Your task to perform on an android device: Open Youtube and go to "Your channel" Image 0: 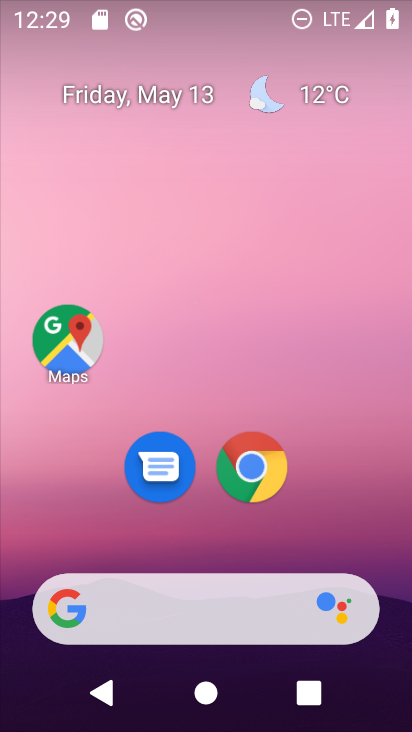
Step 0: drag from (292, 500) to (201, 3)
Your task to perform on an android device: Open Youtube and go to "Your channel" Image 1: 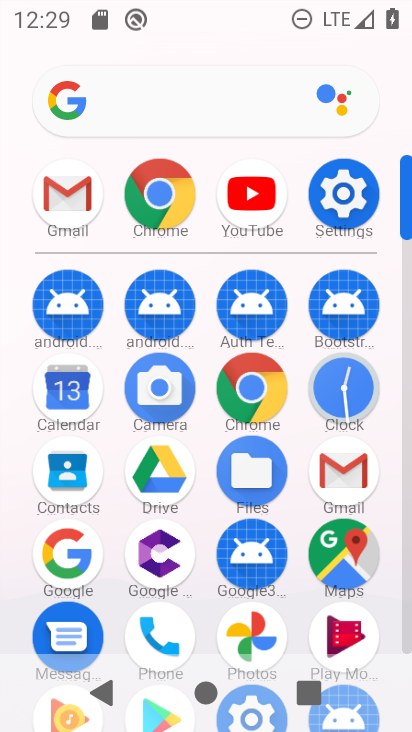
Step 1: drag from (17, 487) to (18, 231)
Your task to perform on an android device: Open Youtube and go to "Your channel" Image 2: 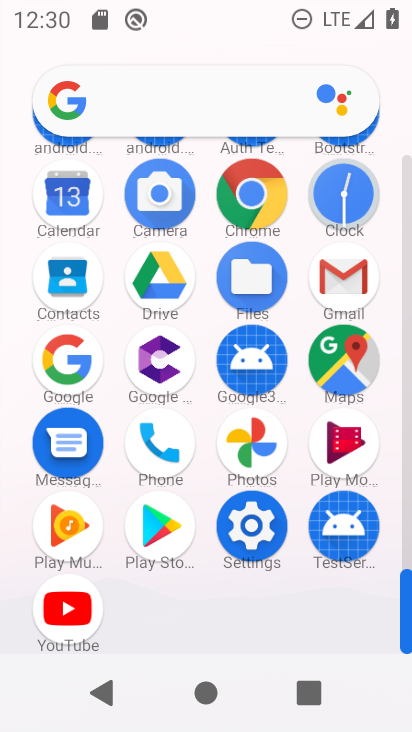
Step 2: drag from (27, 512) to (13, 199)
Your task to perform on an android device: Open Youtube and go to "Your channel" Image 3: 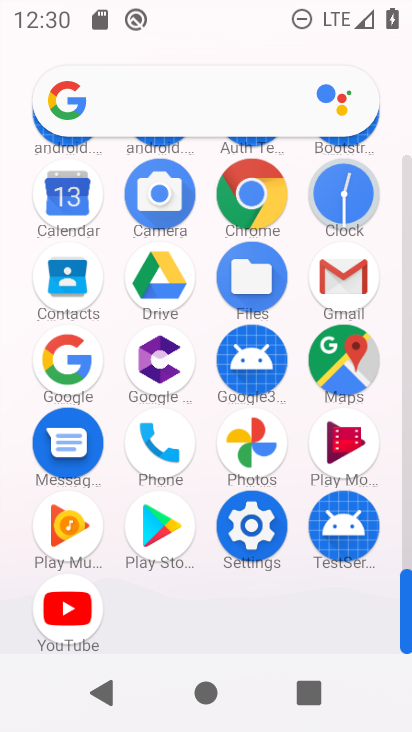
Step 3: click (62, 607)
Your task to perform on an android device: Open Youtube and go to "Your channel" Image 4: 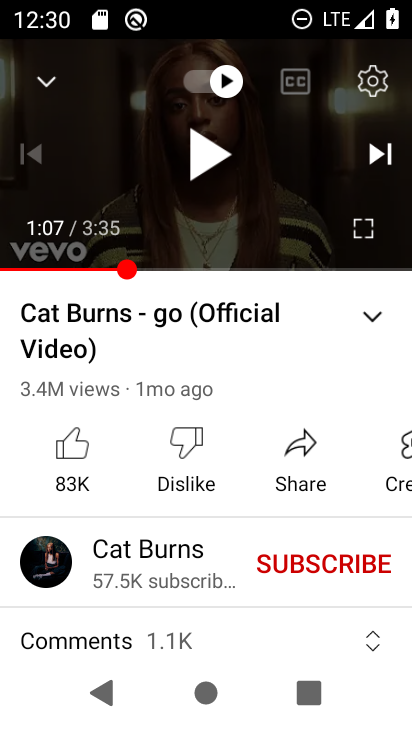
Step 4: press back button
Your task to perform on an android device: Open Youtube and go to "Your channel" Image 5: 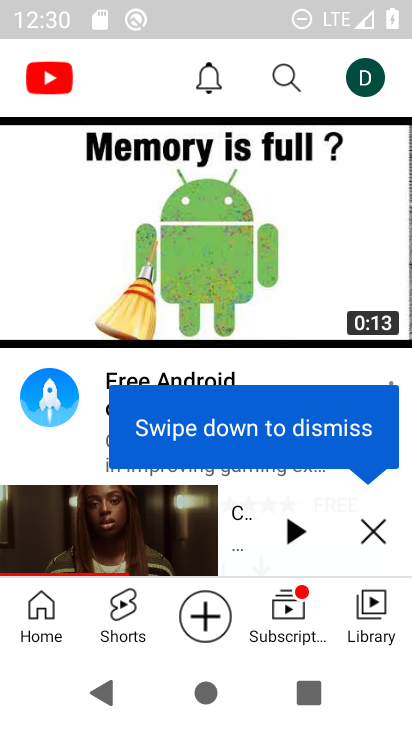
Step 5: click (366, 612)
Your task to perform on an android device: Open Youtube and go to "Your channel" Image 6: 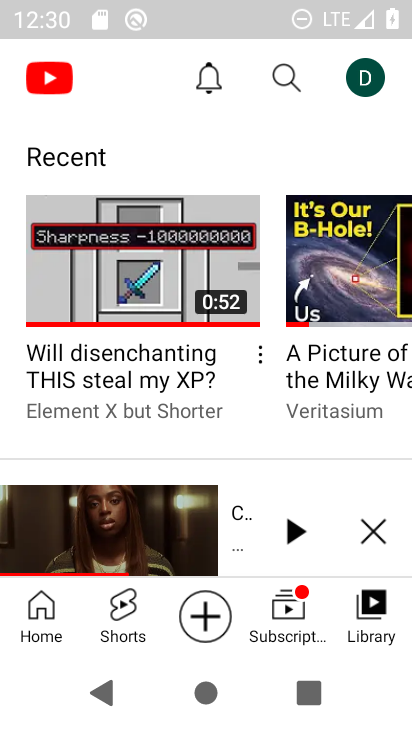
Step 6: click (176, 257)
Your task to perform on an android device: Open Youtube and go to "Your channel" Image 7: 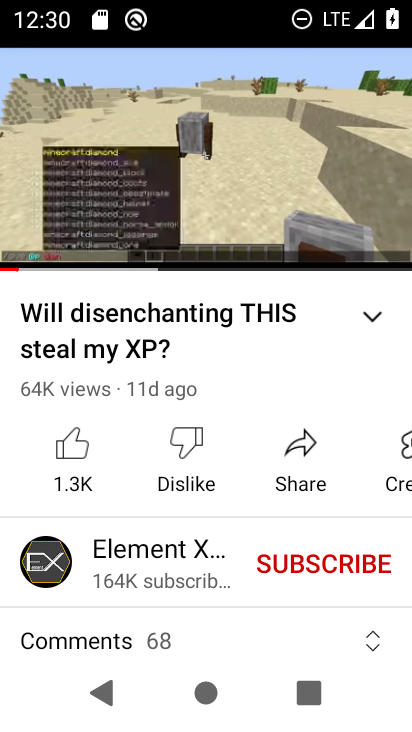
Step 7: task complete